Your task to perform on an android device: Open calendar and show me the second week of next month Image 0: 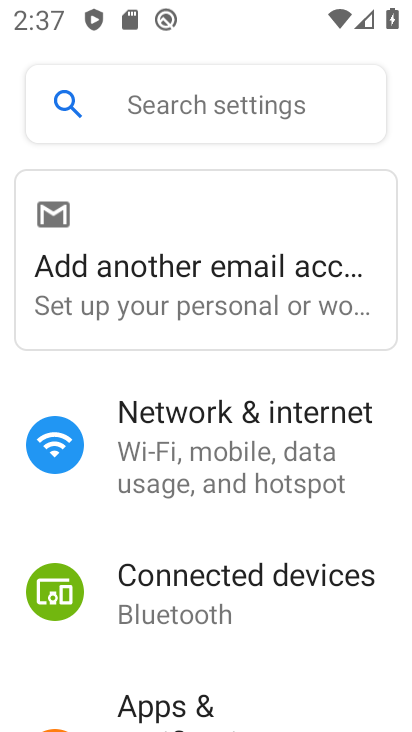
Step 0: press home button
Your task to perform on an android device: Open calendar and show me the second week of next month Image 1: 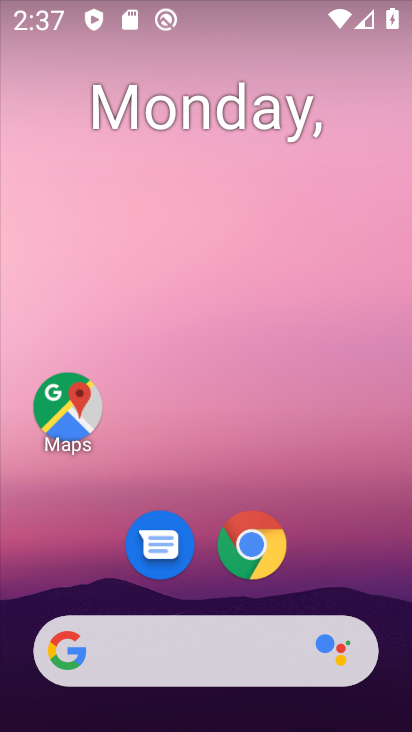
Step 1: drag from (120, 554) to (235, 61)
Your task to perform on an android device: Open calendar and show me the second week of next month Image 2: 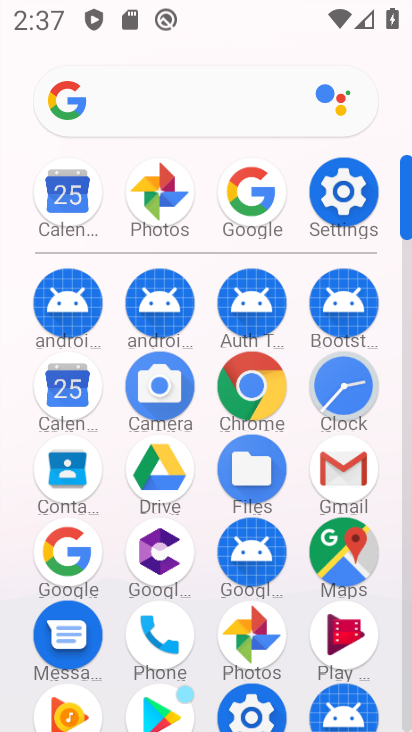
Step 2: click (62, 183)
Your task to perform on an android device: Open calendar and show me the second week of next month Image 3: 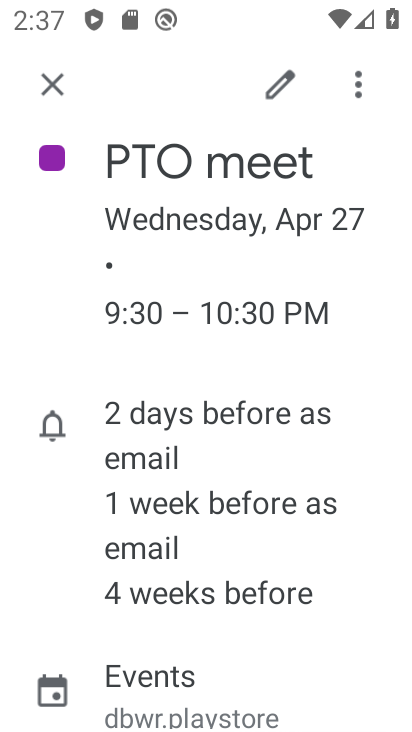
Step 3: click (48, 83)
Your task to perform on an android device: Open calendar and show me the second week of next month Image 4: 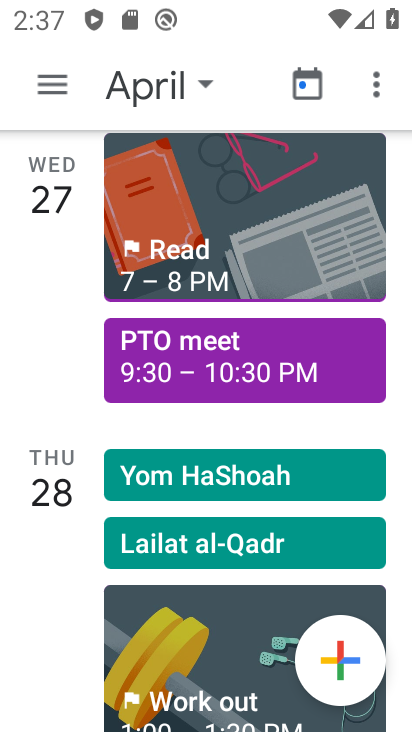
Step 4: click (187, 92)
Your task to perform on an android device: Open calendar and show me the second week of next month Image 5: 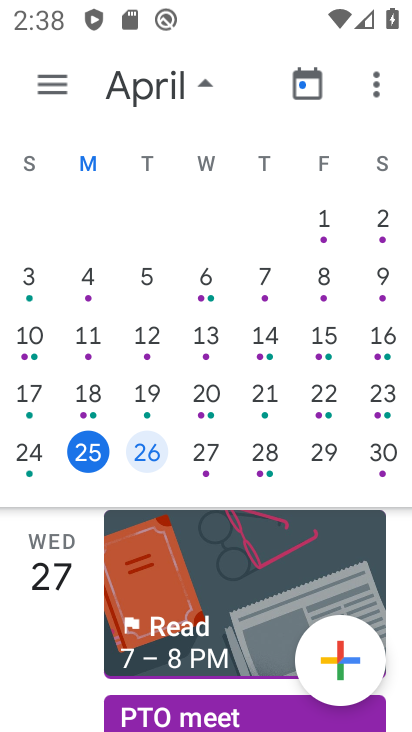
Step 5: drag from (376, 356) to (69, 289)
Your task to perform on an android device: Open calendar and show me the second week of next month Image 6: 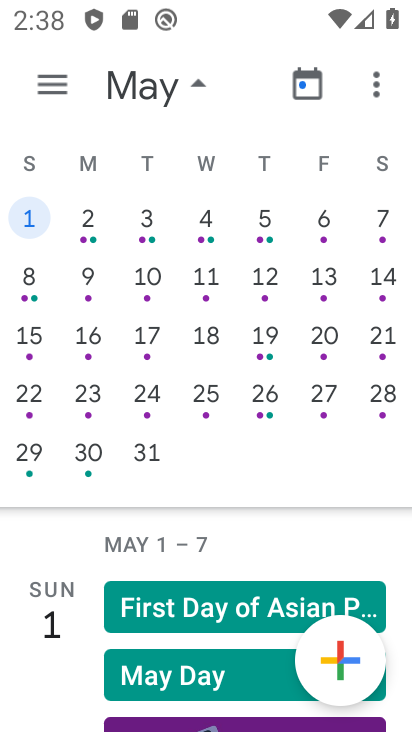
Step 6: click (91, 279)
Your task to perform on an android device: Open calendar and show me the second week of next month Image 7: 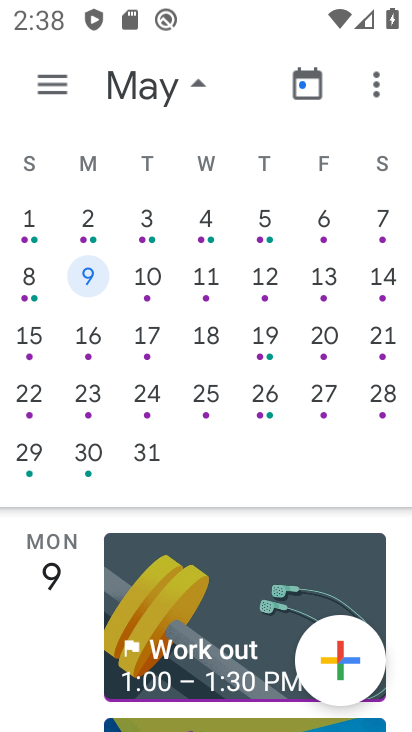
Step 7: task complete